Your task to perform on an android device: Go to Maps Image 0: 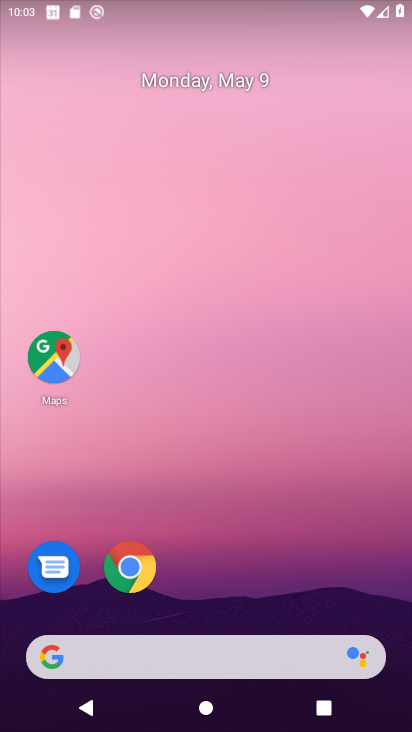
Step 0: click (71, 365)
Your task to perform on an android device: Go to Maps Image 1: 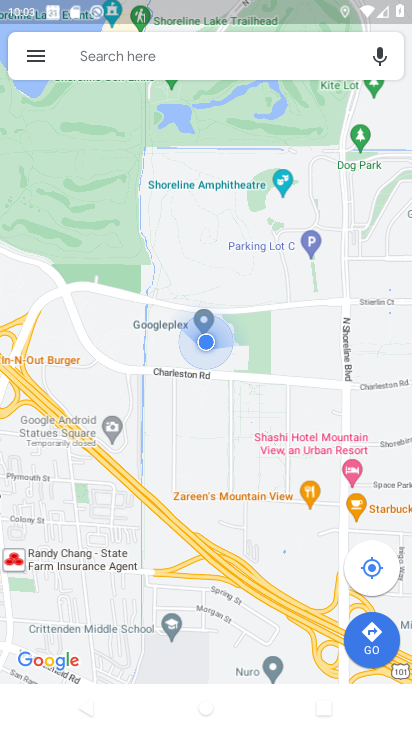
Step 1: task complete